Your task to perform on an android device: turn pop-ups on in chrome Image 0: 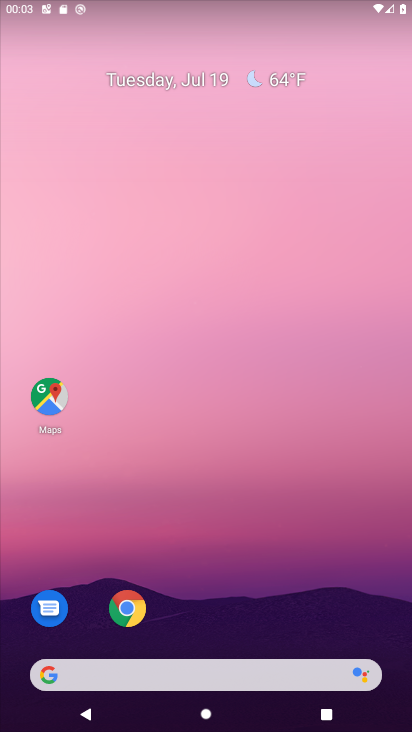
Step 0: drag from (203, 403) to (142, 0)
Your task to perform on an android device: turn pop-ups on in chrome Image 1: 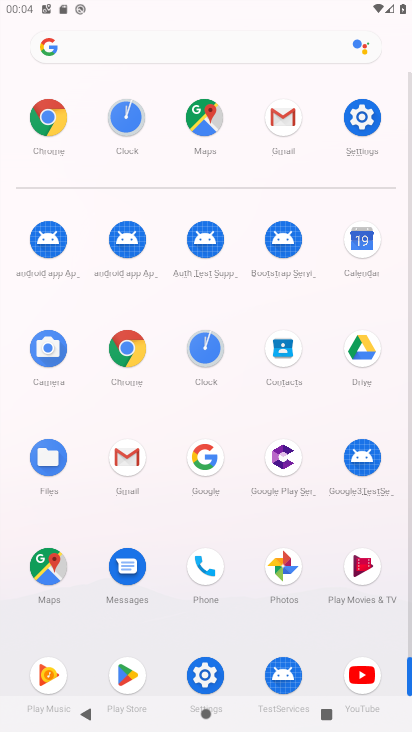
Step 1: click (120, 341)
Your task to perform on an android device: turn pop-ups on in chrome Image 2: 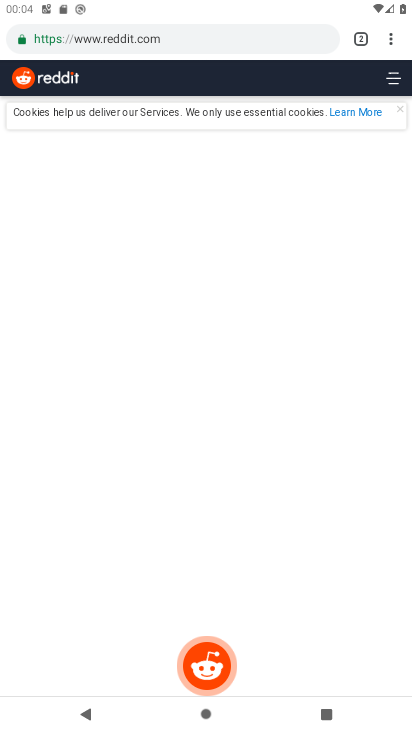
Step 2: click (387, 42)
Your task to perform on an android device: turn pop-ups on in chrome Image 3: 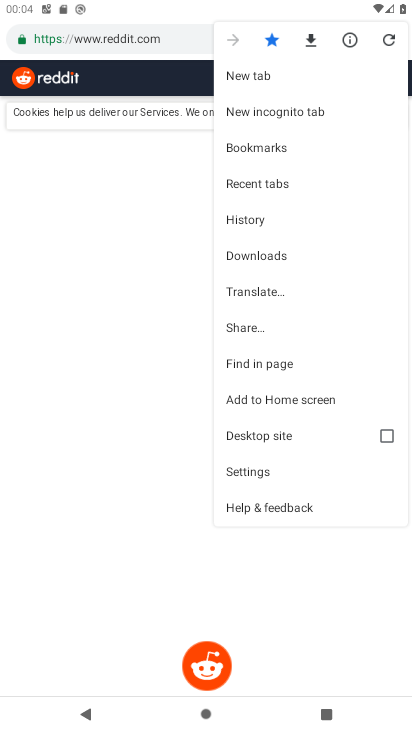
Step 3: click (261, 478)
Your task to perform on an android device: turn pop-ups on in chrome Image 4: 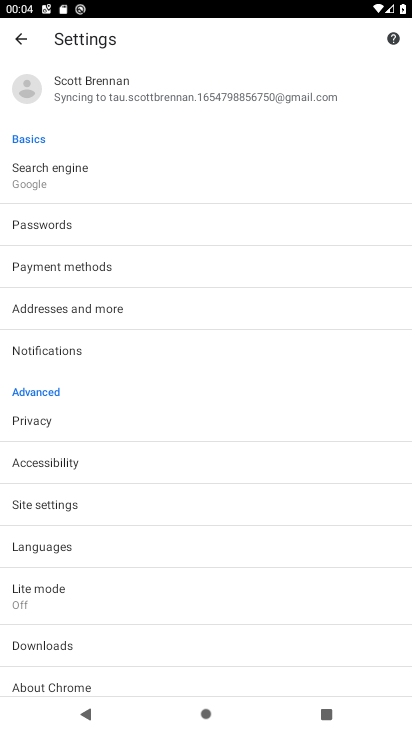
Step 4: click (98, 508)
Your task to perform on an android device: turn pop-ups on in chrome Image 5: 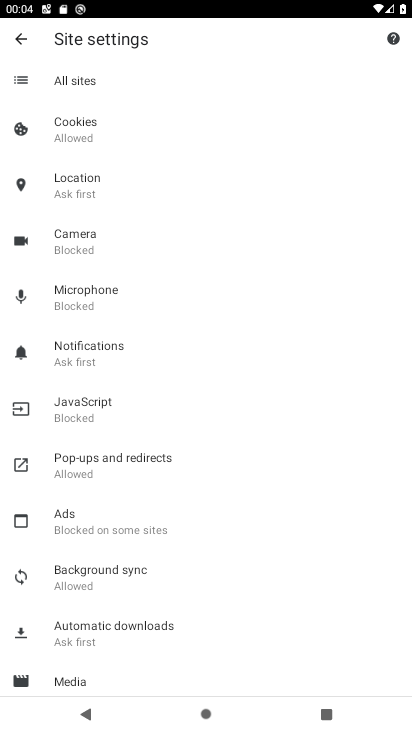
Step 5: click (136, 457)
Your task to perform on an android device: turn pop-ups on in chrome Image 6: 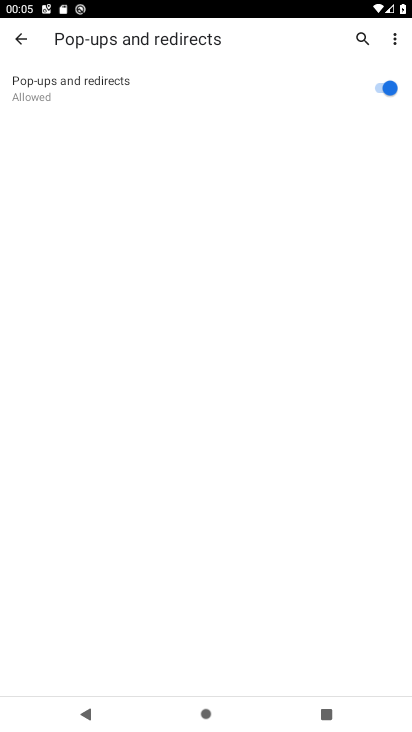
Step 6: task complete